Your task to perform on an android device: View the shopping cart on target. Search for "macbook air" on target, select the first entry, add it to the cart, then select checkout. Image 0: 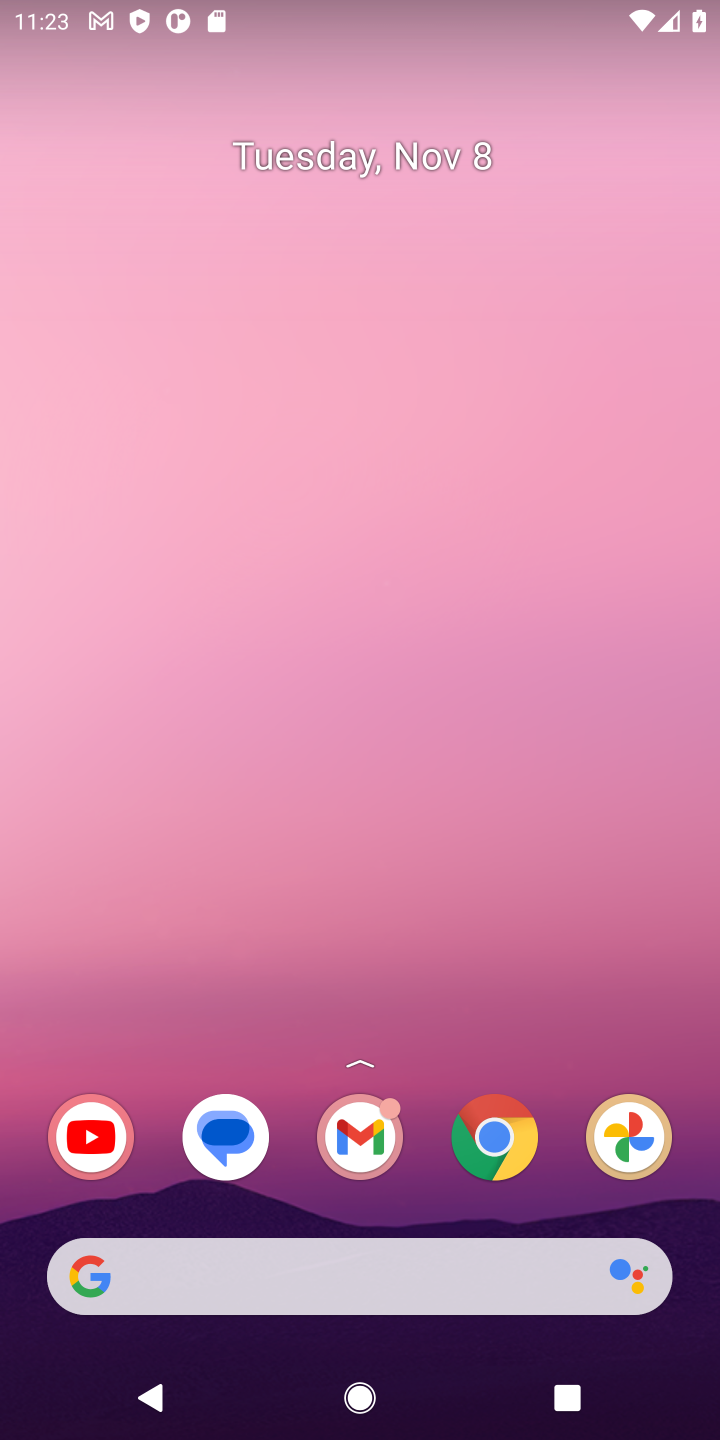
Step 0: click (495, 1142)
Your task to perform on an android device: View the shopping cart on target. Search for "macbook air" on target, select the first entry, add it to the cart, then select checkout. Image 1: 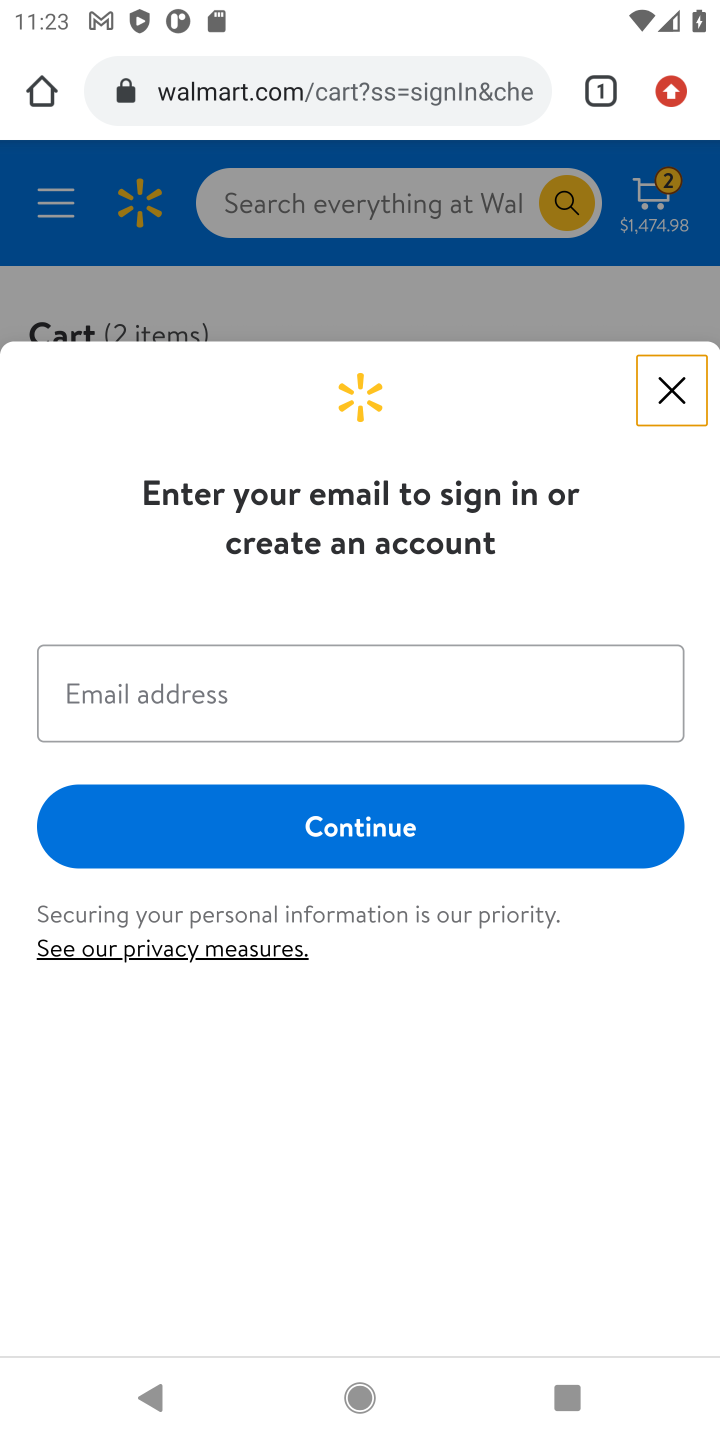
Step 1: click (411, 84)
Your task to perform on an android device: View the shopping cart on target. Search for "macbook air" on target, select the first entry, add it to the cart, then select checkout. Image 2: 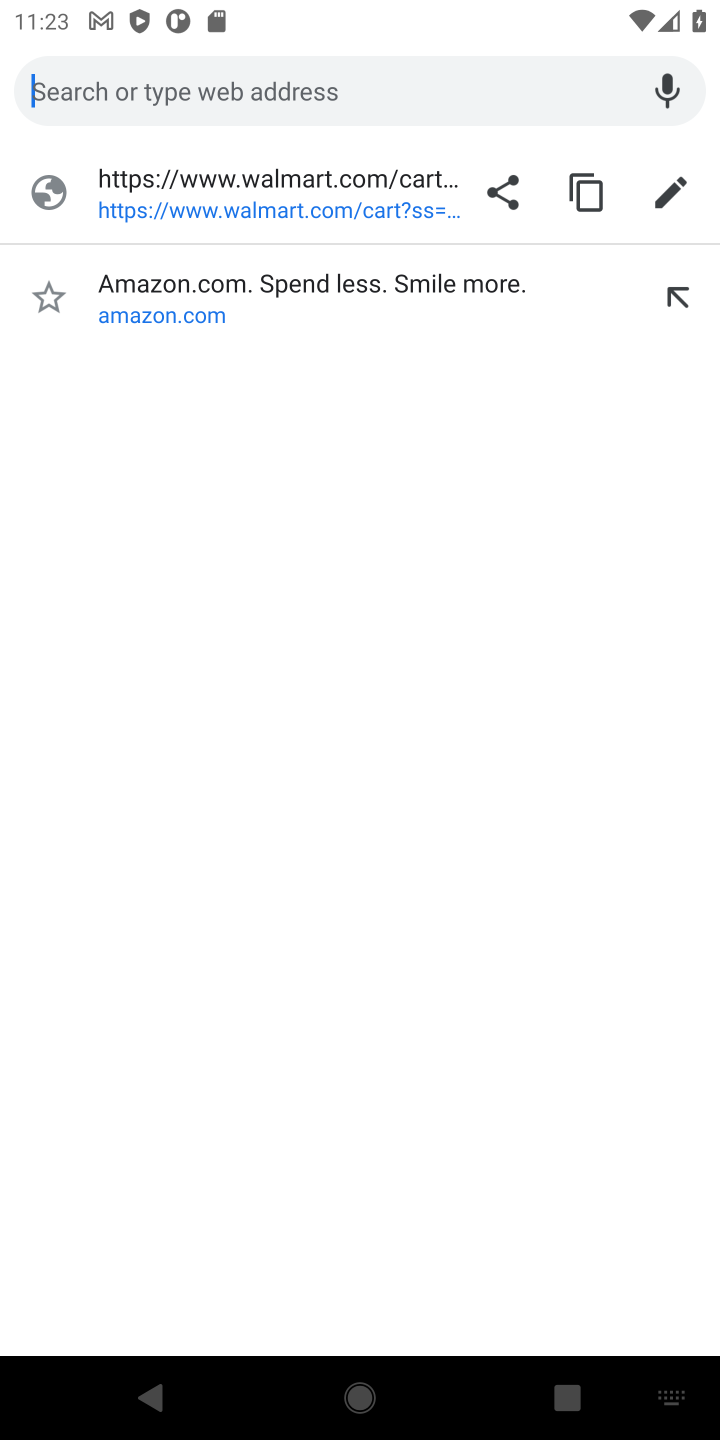
Step 2: type "target"
Your task to perform on an android device: View the shopping cart on target. Search for "macbook air" on target, select the first entry, add it to the cart, then select checkout. Image 3: 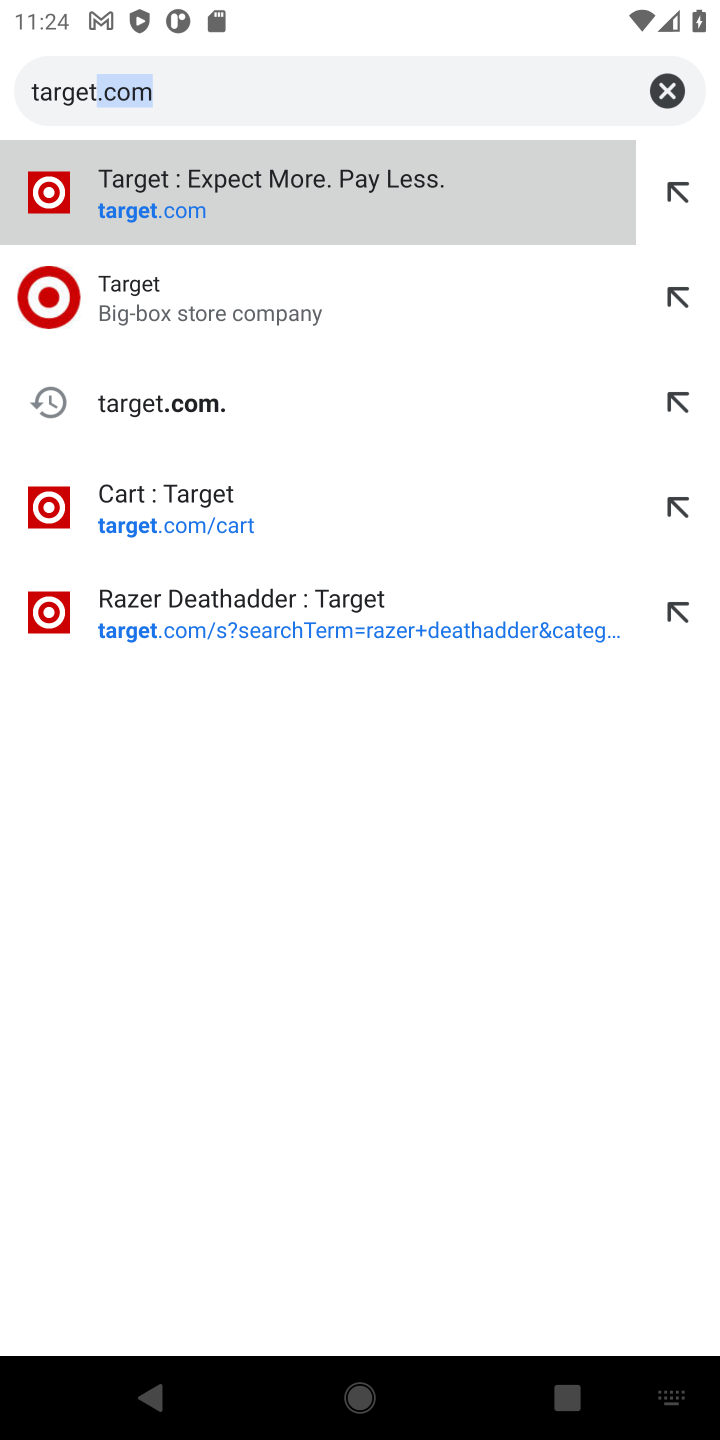
Step 3: click (216, 320)
Your task to perform on an android device: View the shopping cart on target. Search for "macbook air" on target, select the first entry, add it to the cart, then select checkout. Image 4: 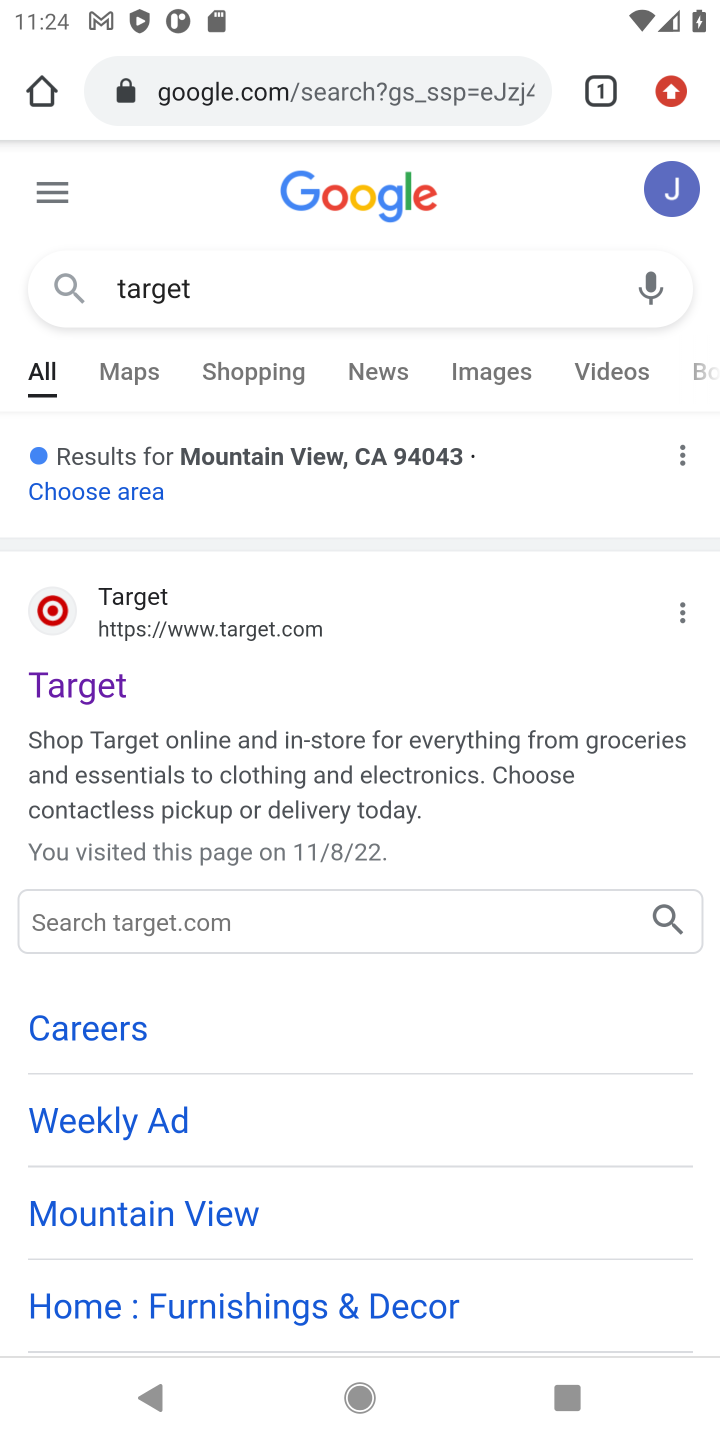
Step 4: click (154, 672)
Your task to perform on an android device: View the shopping cart on target. Search for "macbook air" on target, select the first entry, add it to the cart, then select checkout. Image 5: 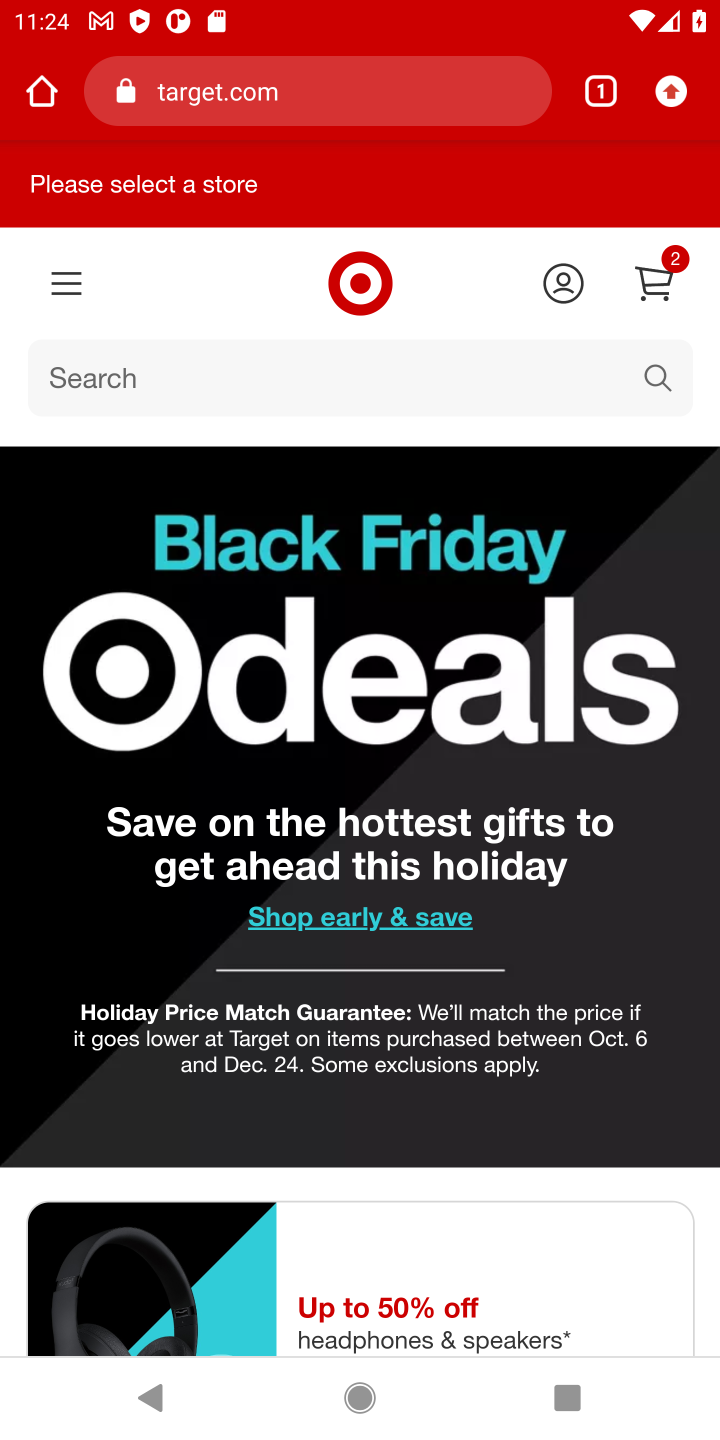
Step 5: click (651, 286)
Your task to perform on an android device: View the shopping cart on target. Search for "macbook air" on target, select the first entry, add it to the cart, then select checkout. Image 6: 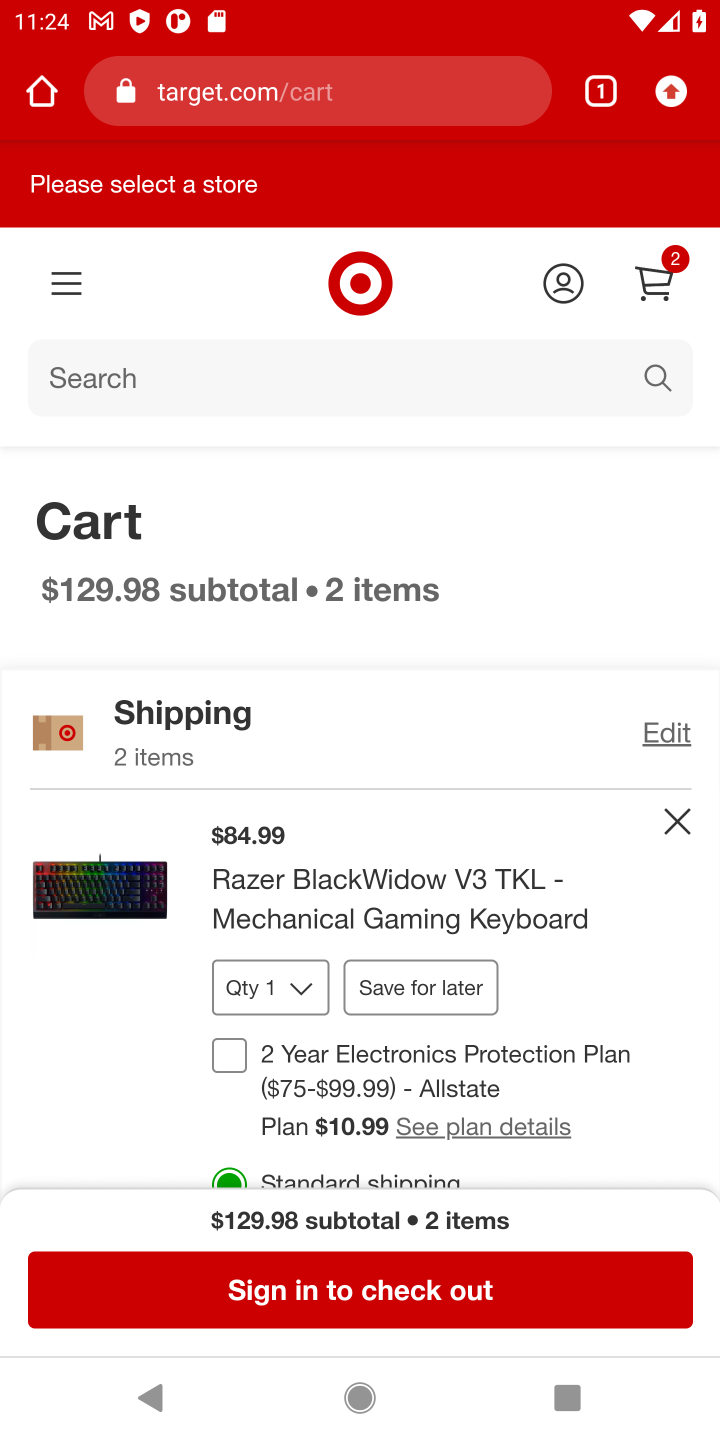
Step 6: click (210, 378)
Your task to perform on an android device: View the shopping cart on target. Search for "macbook air" on target, select the first entry, add it to the cart, then select checkout. Image 7: 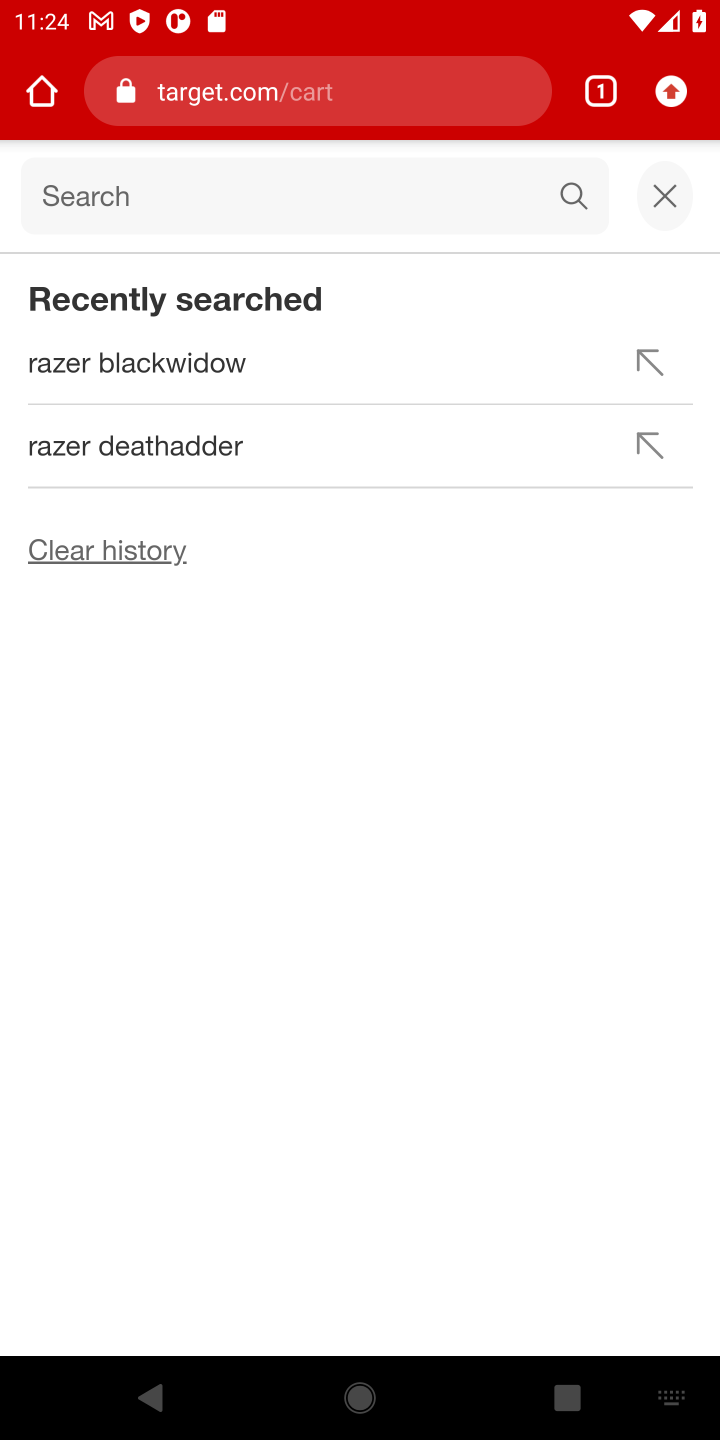
Step 7: type "macbook air"
Your task to perform on an android device: View the shopping cart on target. Search for "macbook air" on target, select the first entry, add it to the cart, then select checkout. Image 8: 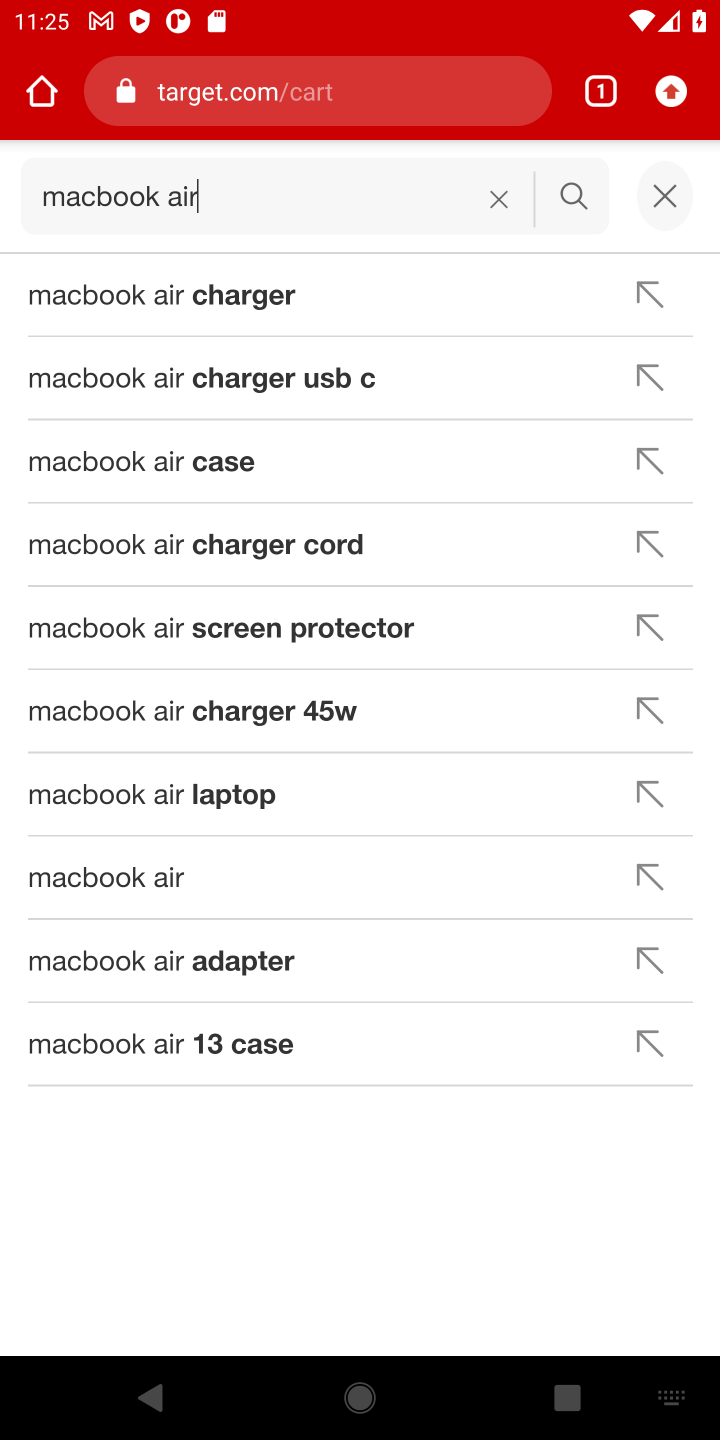
Step 8: click (152, 875)
Your task to perform on an android device: View the shopping cart on target. Search for "macbook air" on target, select the first entry, add it to the cart, then select checkout. Image 9: 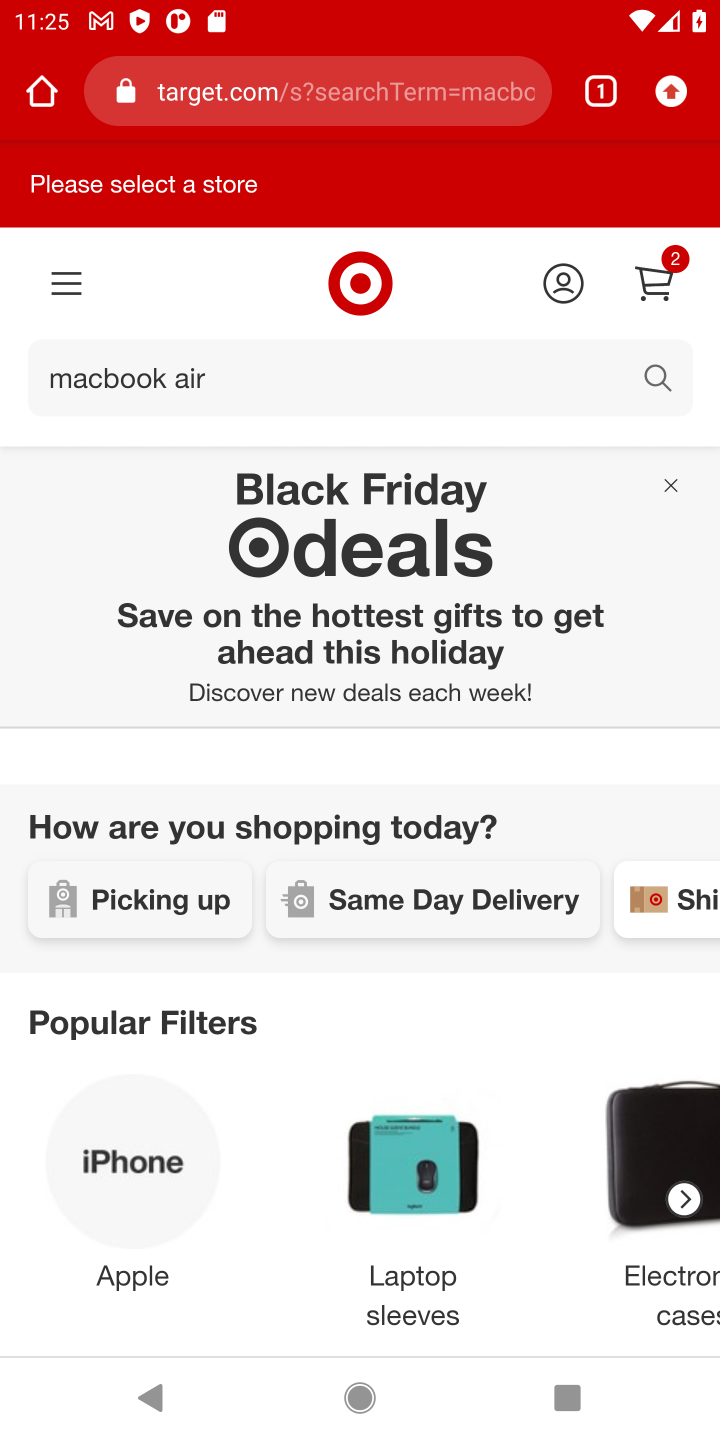
Step 9: drag from (482, 1049) to (533, 531)
Your task to perform on an android device: View the shopping cart on target. Search for "macbook air" on target, select the first entry, add it to the cart, then select checkout. Image 10: 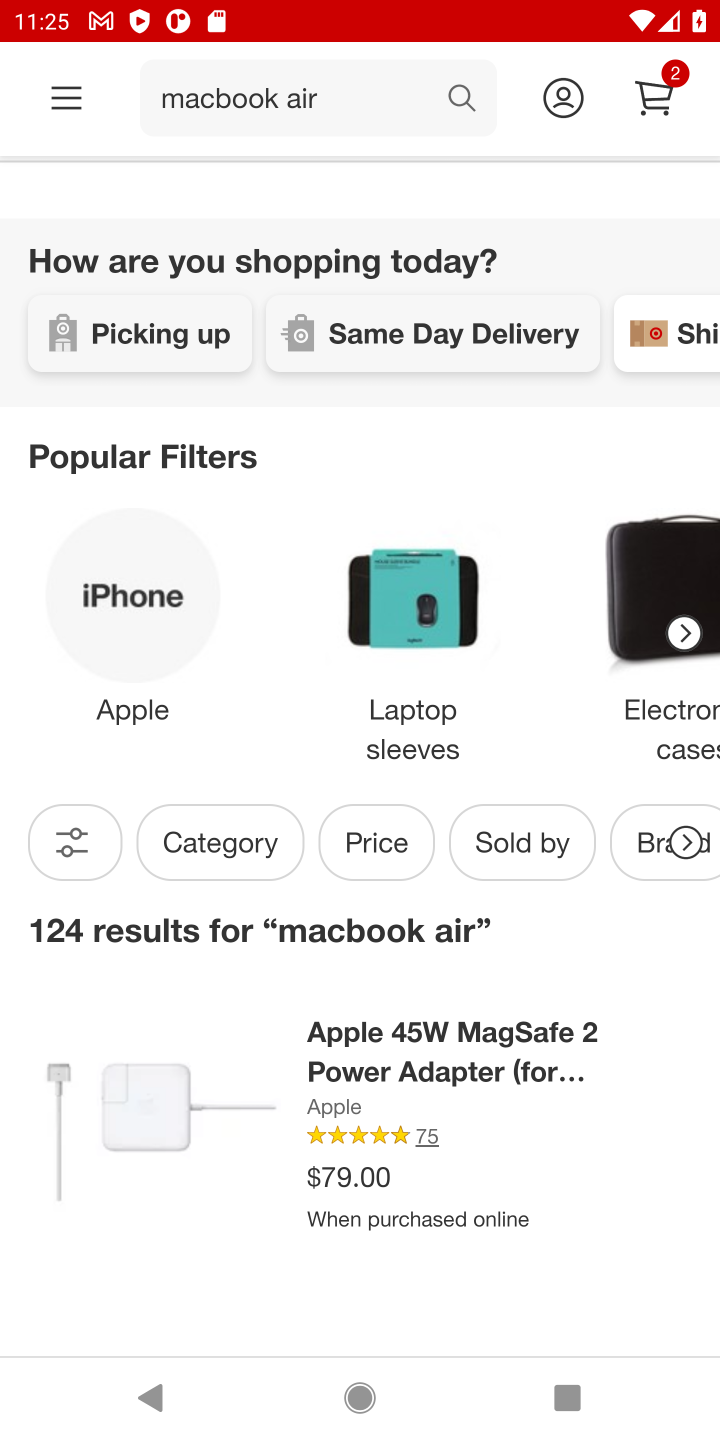
Step 10: drag from (523, 1145) to (541, 819)
Your task to perform on an android device: View the shopping cart on target. Search for "macbook air" on target, select the first entry, add it to the cart, then select checkout. Image 11: 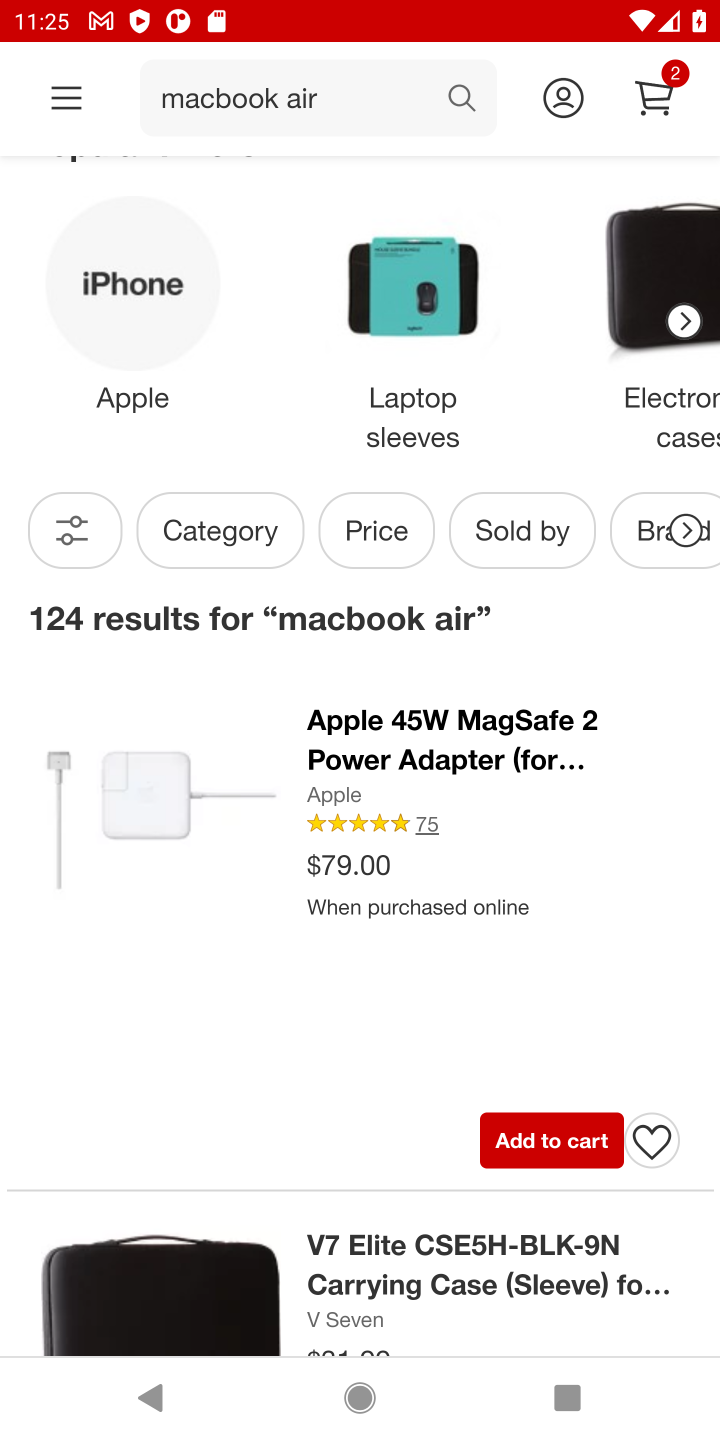
Step 11: click (536, 1129)
Your task to perform on an android device: View the shopping cart on target. Search for "macbook air" on target, select the first entry, add it to the cart, then select checkout. Image 12: 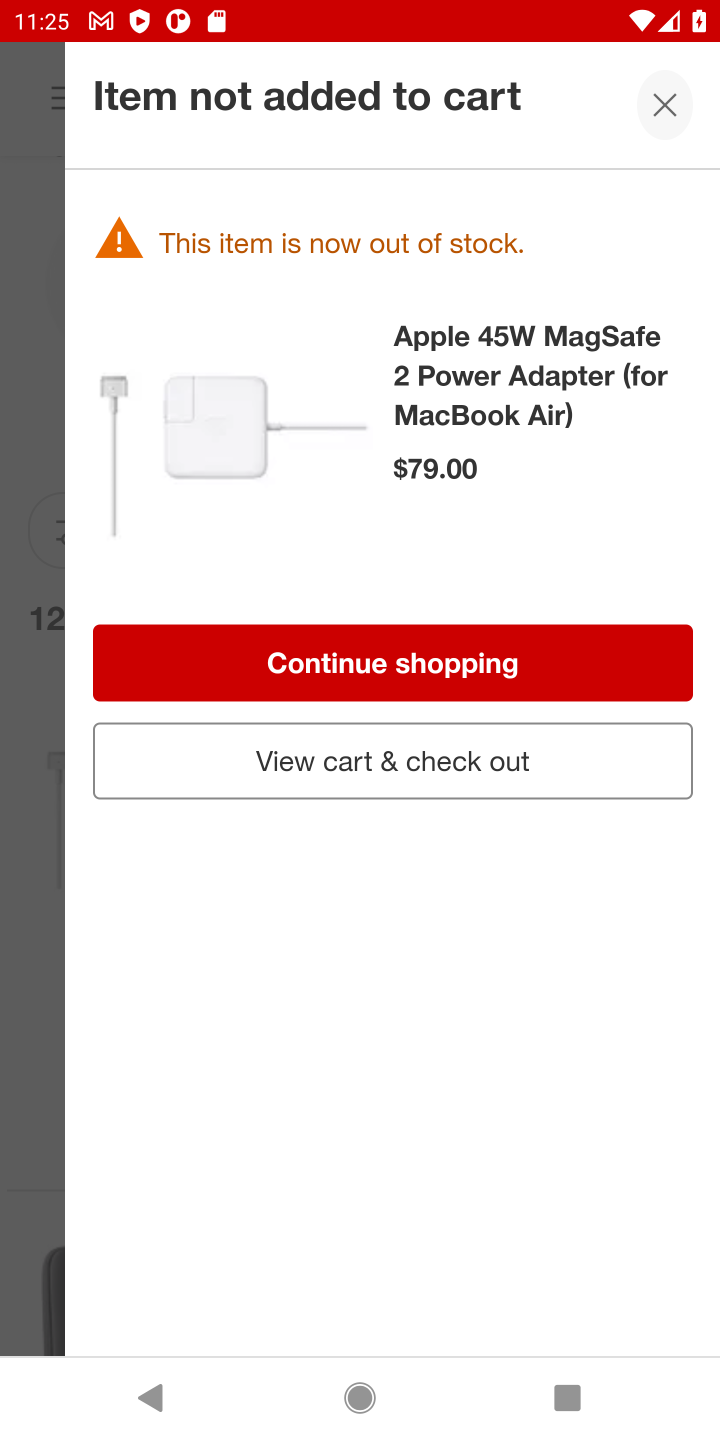
Step 12: click (406, 757)
Your task to perform on an android device: View the shopping cart on target. Search for "macbook air" on target, select the first entry, add it to the cart, then select checkout. Image 13: 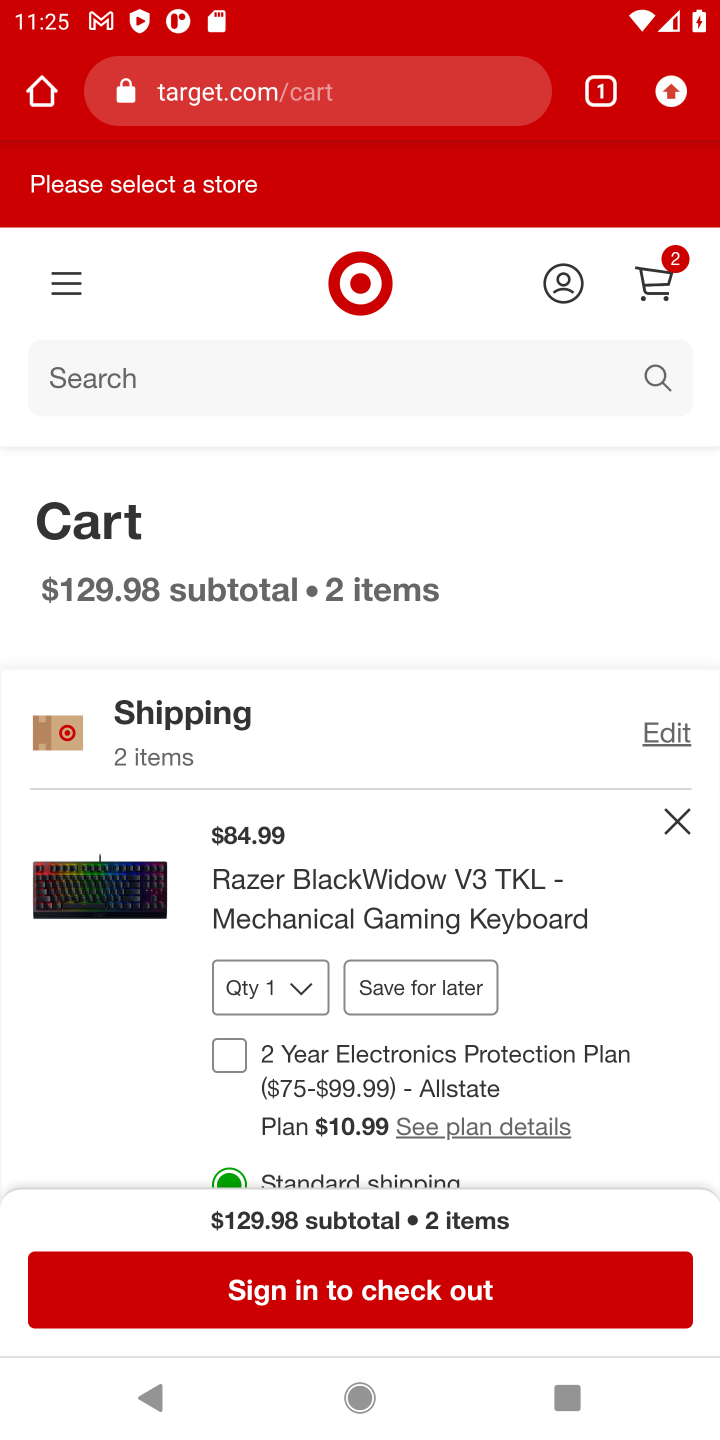
Step 13: click (382, 1297)
Your task to perform on an android device: View the shopping cart on target. Search for "macbook air" on target, select the first entry, add it to the cart, then select checkout. Image 14: 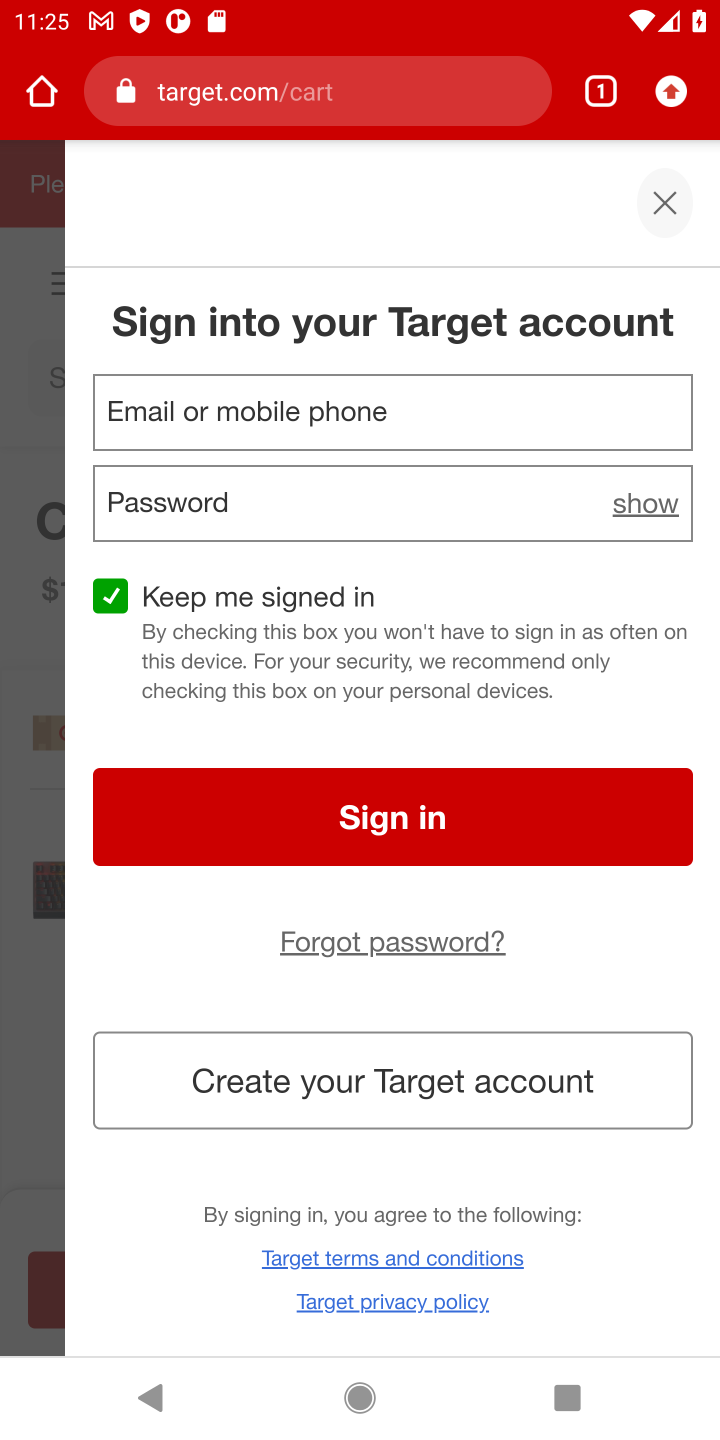
Step 14: task complete